Your task to perform on an android device: turn off location Image 0: 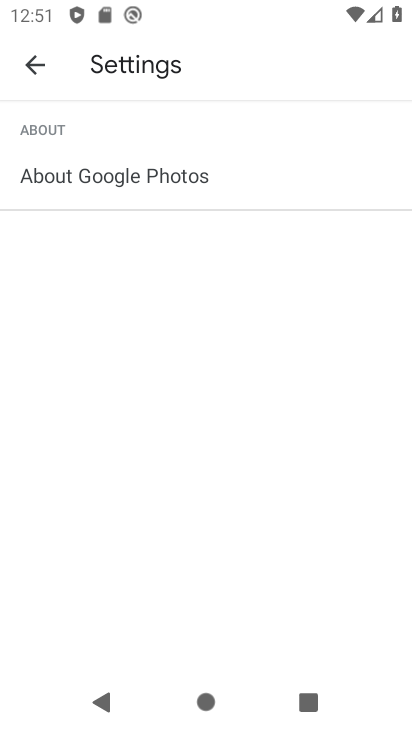
Step 0: press home button
Your task to perform on an android device: turn off location Image 1: 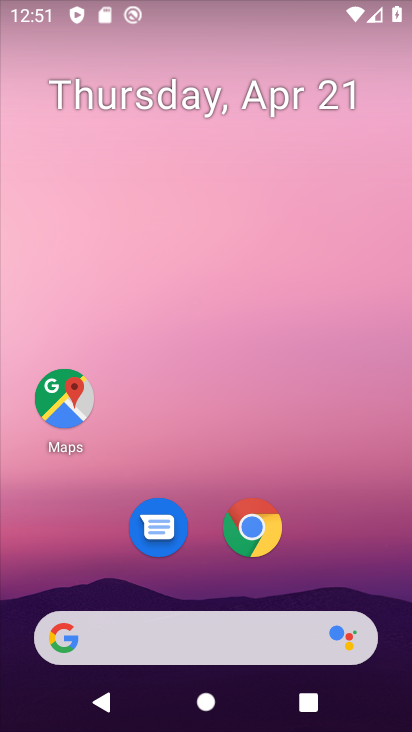
Step 1: drag from (357, 539) to (349, 63)
Your task to perform on an android device: turn off location Image 2: 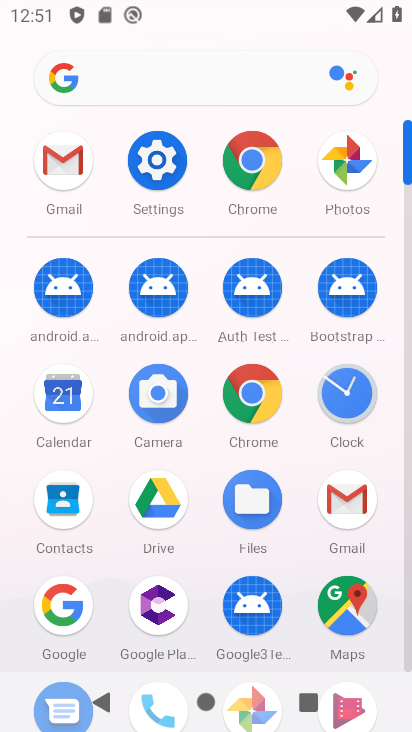
Step 2: click (157, 171)
Your task to perform on an android device: turn off location Image 3: 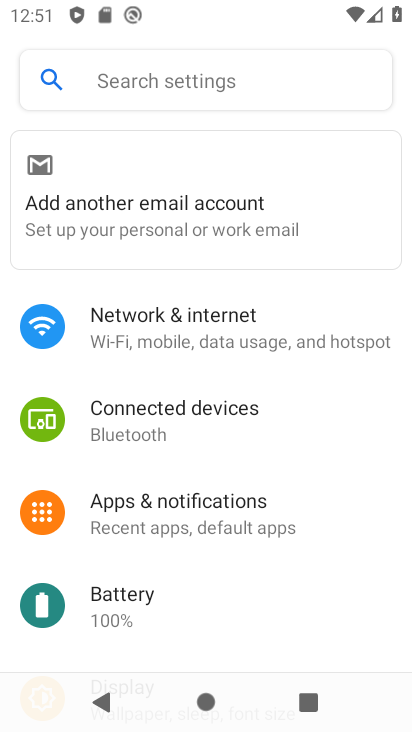
Step 3: drag from (349, 598) to (349, 475)
Your task to perform on an android device: turn off location Image 4: 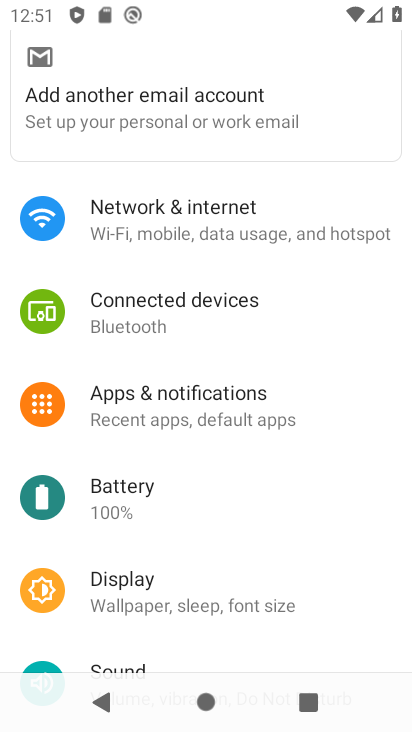
Step 4: drag from (345, 598) to (366, 381)
Your task to perform on an android device: turn off location Image 5: 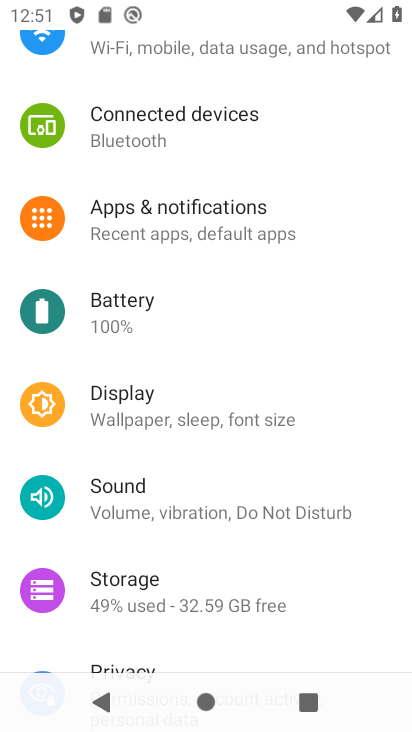
Step 5: drag from (360, 583) to (365, 421)
Your task to perform on an android device: turn off location Image 6: 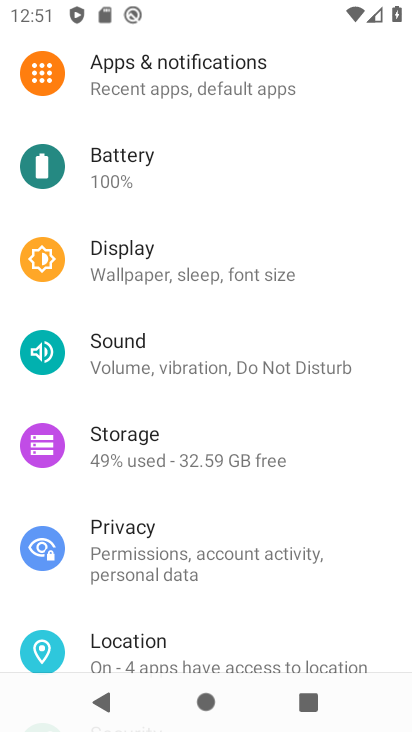
Step 6: drag from (354, 593) to (360, 430)
Your task to perform on an android device: turn off location Image 7: 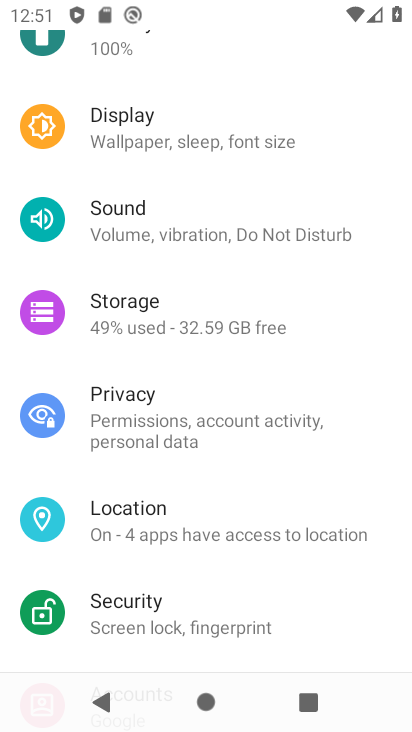
Step 7: drag from (357, 607) to (358, 434)
Your task to perform on an android device: turn off location Image 8: 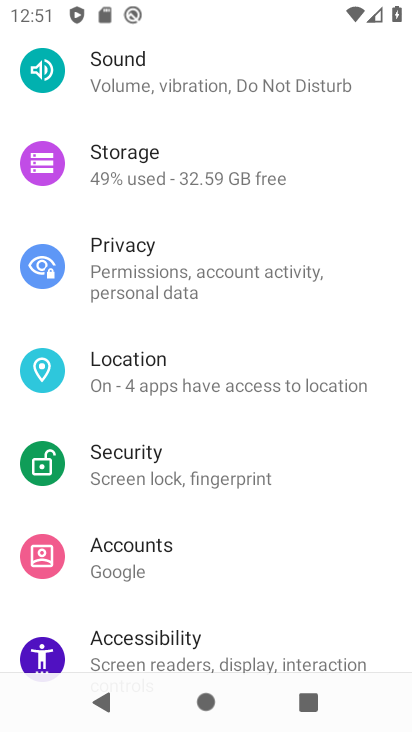
Step 8: drag from (348, 551) to (358, 360)
Your task to perform on an android device: turn off location Image 9: 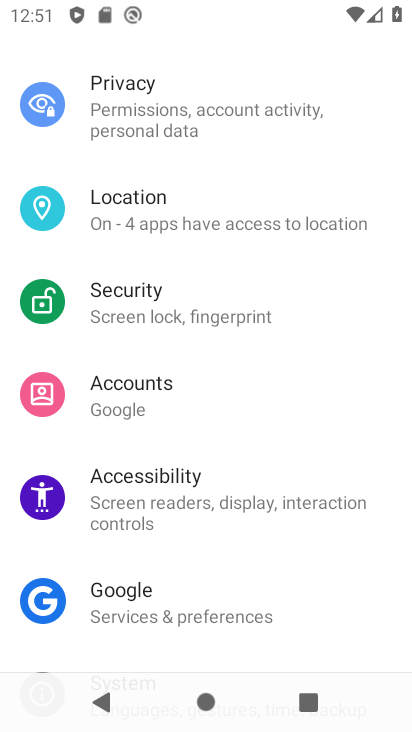
Step 9: drag from (356, 586) to (375, 403)
Your task to perform on an android device: turn off location Image 10: 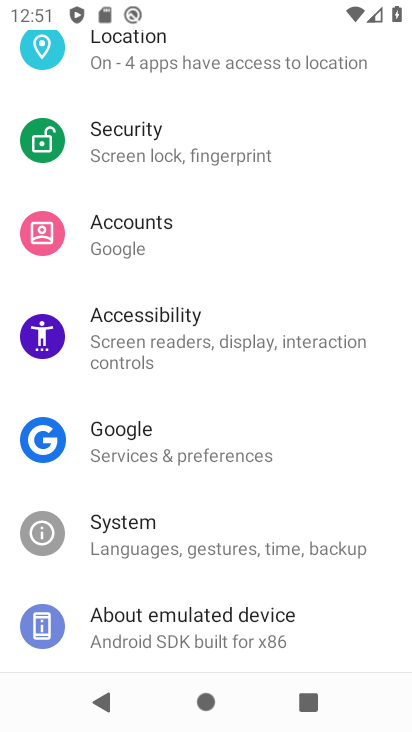
Step 10: drag from (351, 616) to (367, 448)
Your task to perform on an android device: turn off location Image 11: 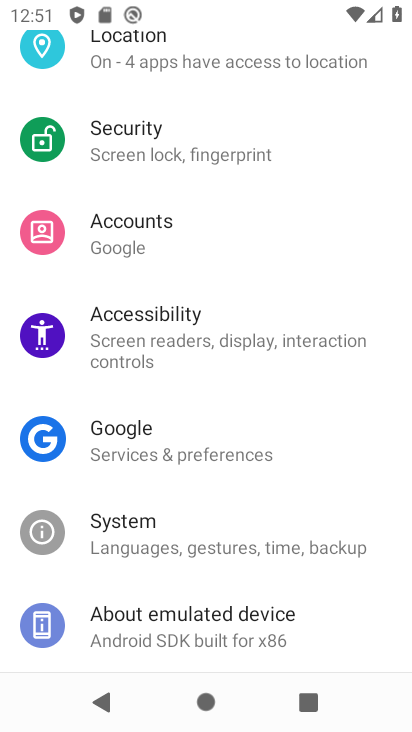
Step 11: drag from (384, 250) to (360, 600)
Your task to perform on an android device: turn off location Image 12: 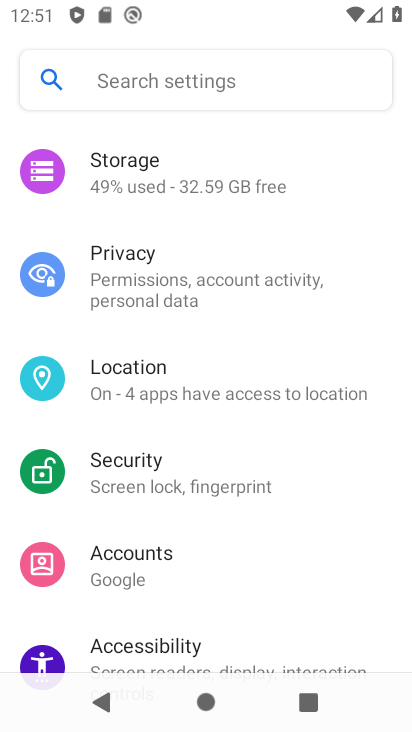
Step 12: click (173, 387)
Your task to perform on an android device: turn off location Image 13: 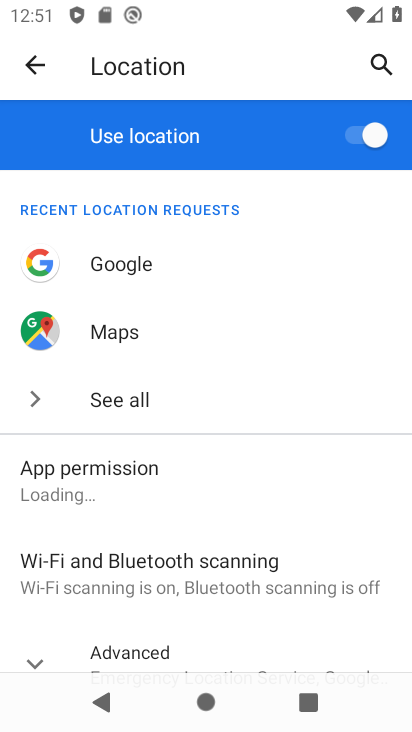
Step 13: click (364, 133)
Your task to perform on an android device: turn off location Image 14: 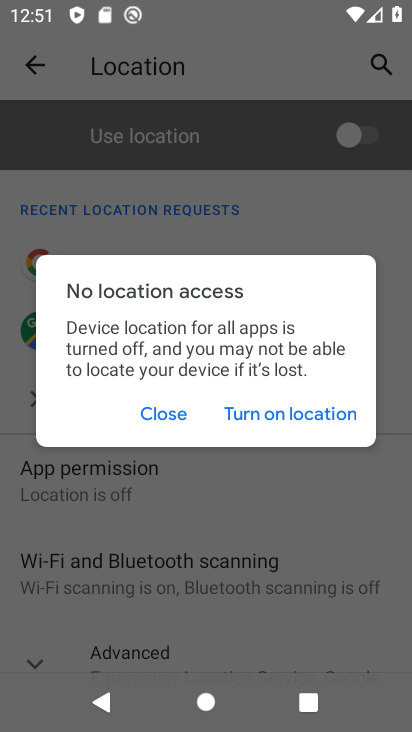
Step 14: task complete